Your task to perform on an android device: Add "usb-c to usb-a" to the cart on walmart, then select checkout. Image 0: 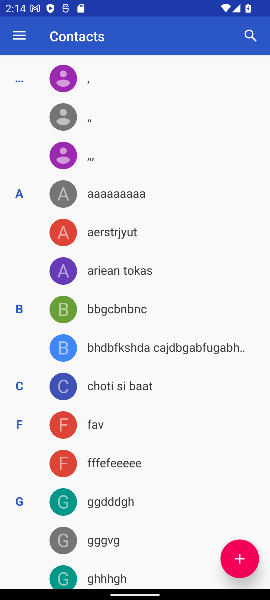
Step 0: press home button
Your task to perform on an android device: Add "usb-c to usb-a" to the cart on walmart, then select checkout. Image 1: 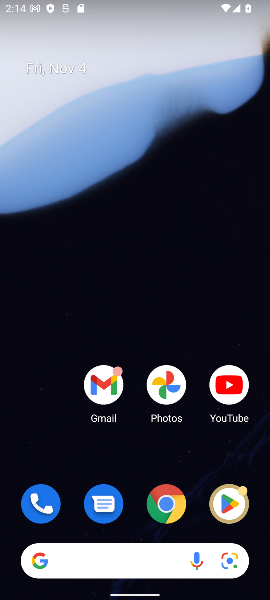
Step 1: click (164, 508)
Your task to perform on an android device: Add "usb-c to usb-a" to the cart on walmart, then select checkout. Image 2: 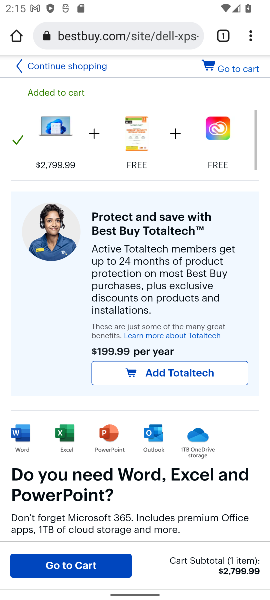
Step 2: click (107, 41)
Your task to perform on an android device: Add "usb-c to usb-a" to the cart on walmart, then select checkout. Image 3: 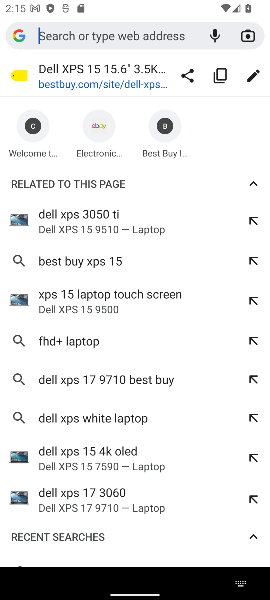
Step 3: type "walmart.com"
Your task to perform on an android device: Add "usb-c to usb-a" to the cart on walmart, then select checkout. Image 4: 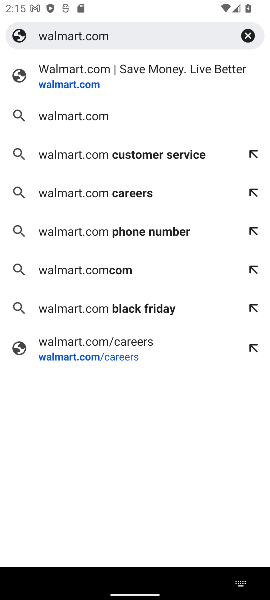
Step 4: click (77, 81)
Your task to perform on an android device: Add "usb-c to usb-a" to the cart on walmart, then select checkout. Image 5: 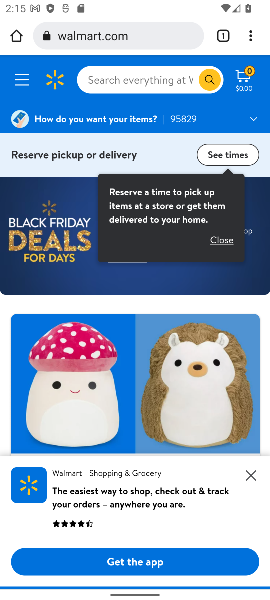
Step 5: click (97, 84)
Your task to perform on an android device: Add "usb-c to usb-a" to the cart on walmart, then select checkout. Image 6: 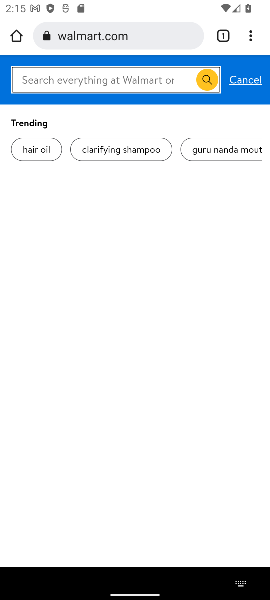
Step 6: type "usb-c to usb-a"
Your task to perform on an android device: Add "usb-c to usb-a" to the cart on walmart, then select checkout. Image 7: 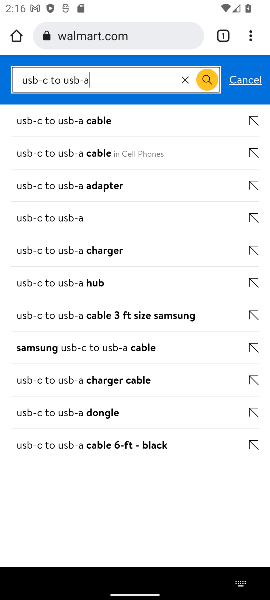
Step 7: click (50, 122)
Your task to perform on an android device: Add "usb-c to usb-a" to the cart on walmart, then select checkout. Image 8: 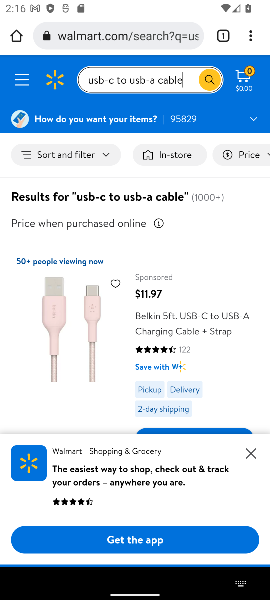
Step 8: click (74, 335)
Your task to perform on an android device: Add "usb-c to usb-a" to the cart on walmart, then select checkout. Image 9: 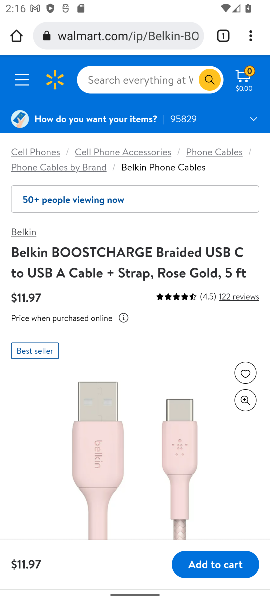
Step 9: click (213, 564)
Your task to perform on an android device: Add "usb-c to usb-a" to the cart on walmart, then select checkout. Image 10: 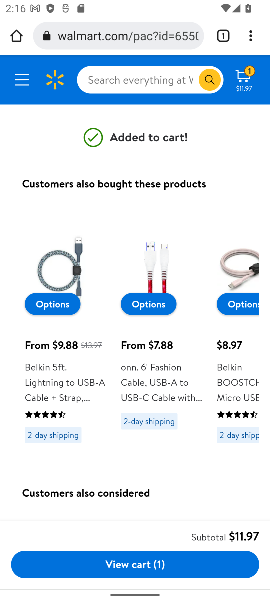
Step 10: click (127, 568)
Your task to perform on an android device: Add "usb-c to usb-a" to the cart on walmart, then select checkout. Image 11: 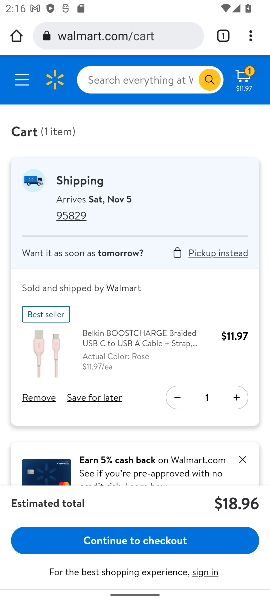
Step 11: click (133, 544)
Your task to perform on an android device: Add "usb-c to usb-a" to the cart on walmart, then select checkout. Image 12: 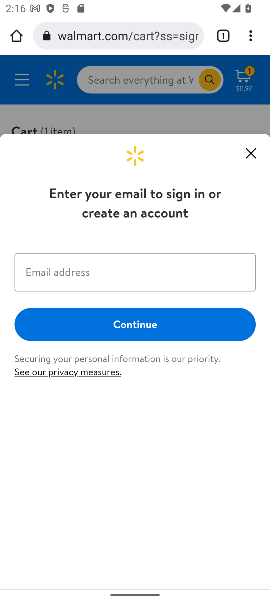
Step 12: task complete